Your task to perform on an android device: toggle notification dots Image 0: 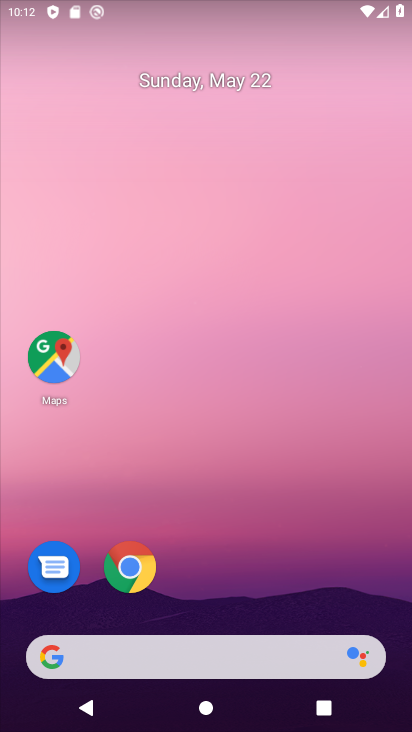
Step 0: drag from (385, 611) to (329, 7)
Your task to perform on an android device: toggle notification dots Image 1: 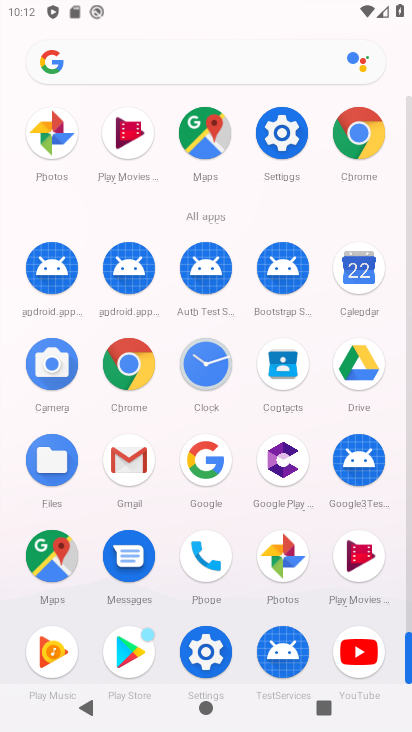
Step 1: click (407, 620)
Your task to perform on an android device: toggle notification dots Image 2: 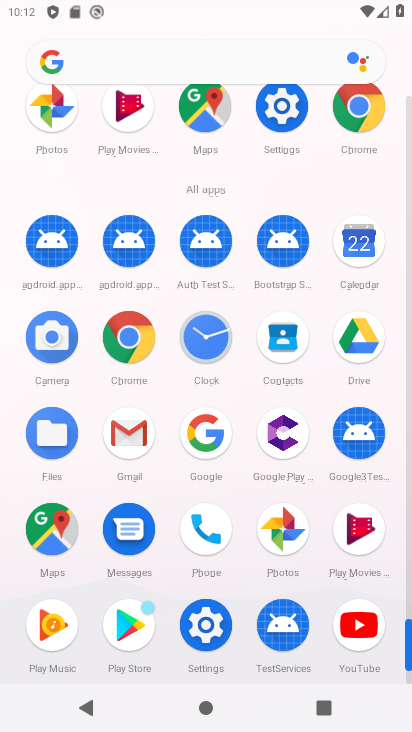
Step 2: click (207, 628)
Your task to perform on an android device: toggle notification dots Image 3: 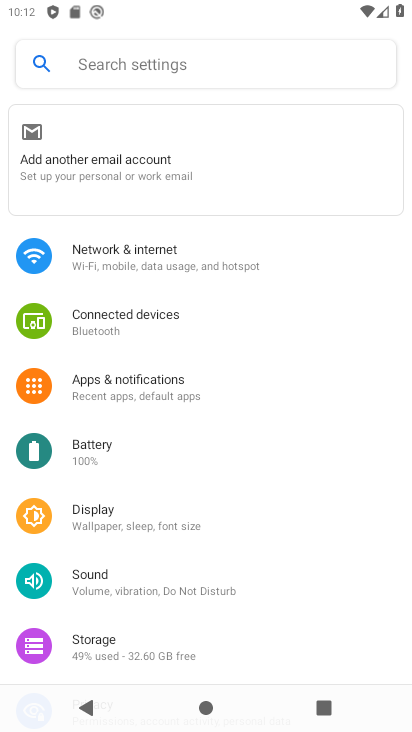
Step 3: click (86, 377)
Your task to perform on an android device: toggle notification dots Image 4: 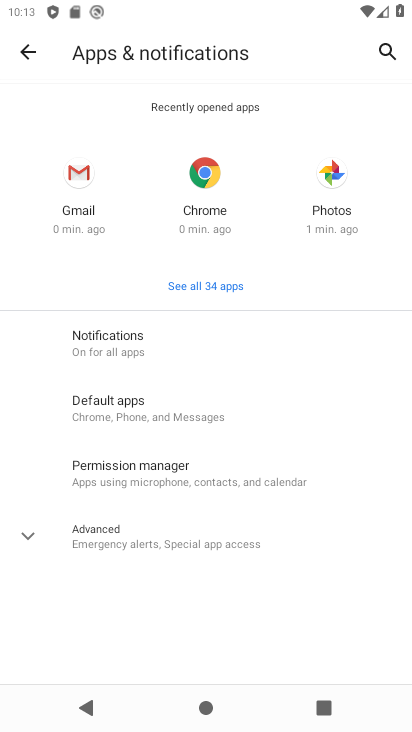
Step 4: click (84, 337)
Your task to perform on an android device: toggle notification dots Image 5: 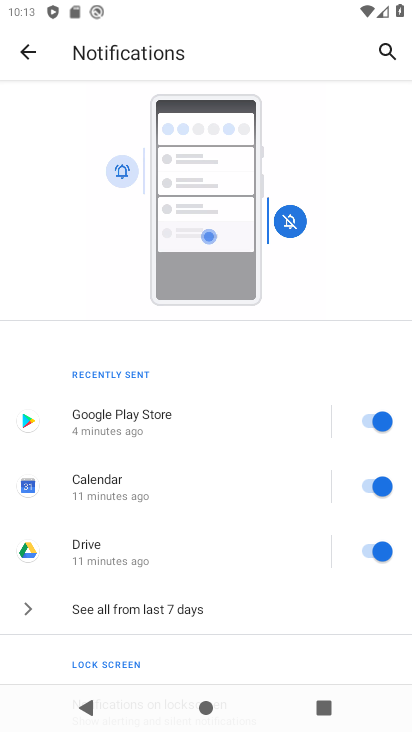
Step 5: drag from (323, 637) to (288, 183)
Your task to perform on an android device: toggle notification dots Image 6: 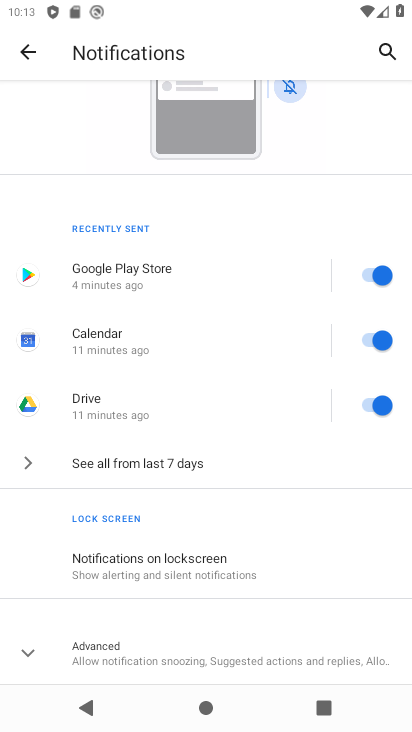
Step 6: click (28, 652)
Your task to perform on an android device: toggle notification dots Image 7: 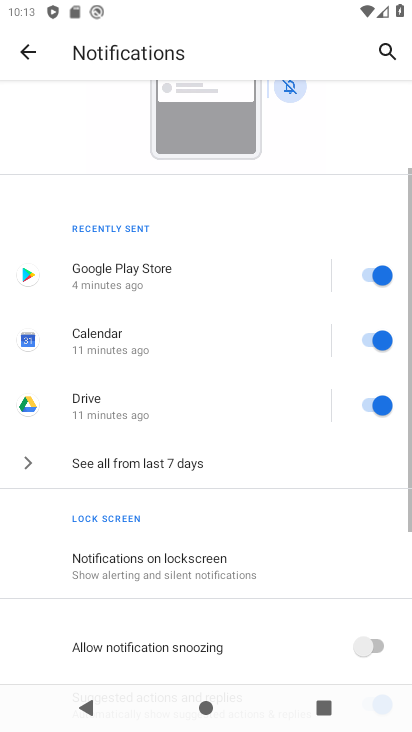
Step 7: drag from (252, 634) to (280, 171)
Your task to perform on an android device: toggle notification dots Image 8: 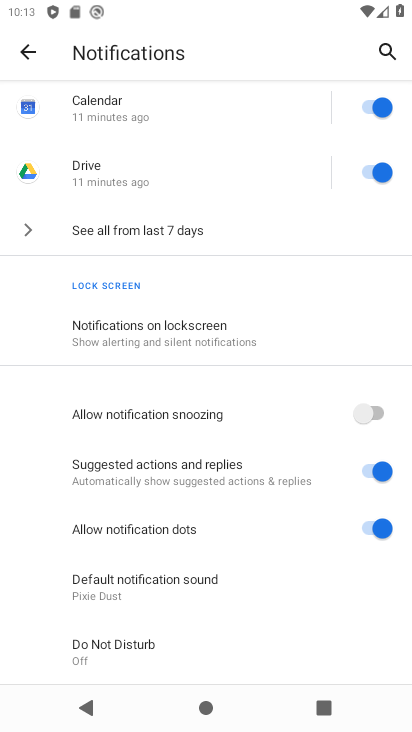
Step 8: click (362, 526)
Your task to perform on an android device: toggle notification dots Image 9: 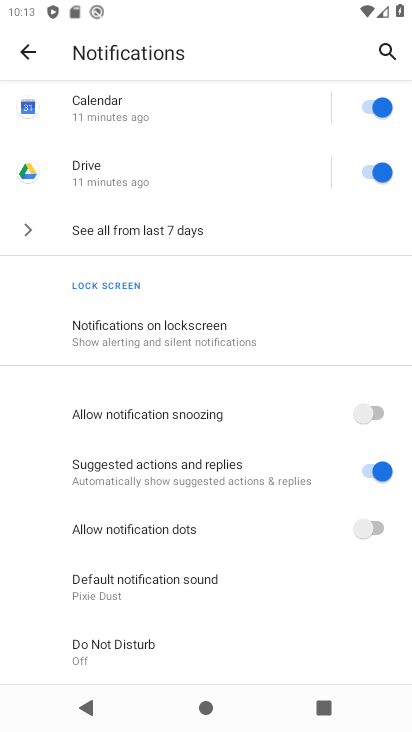
Step 9: task complete